Your task to perform on an android device: delete the emails in spam in the gmail app Image 0: 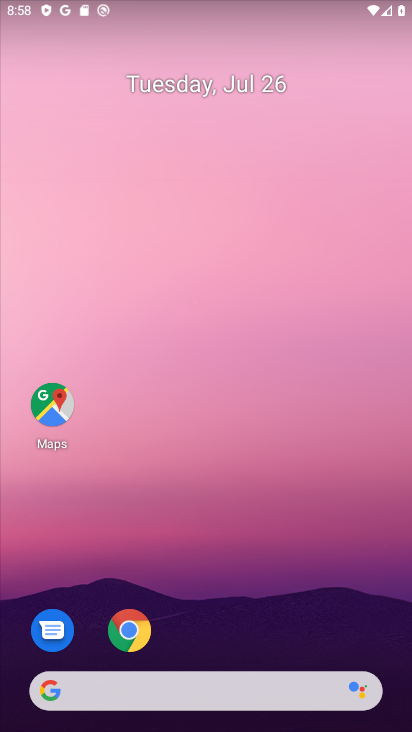
Step 0: drag from (241, 629) to (113, 143)
Your task to perform on an android device: delete the emails in spam in the gmail app Image 1: 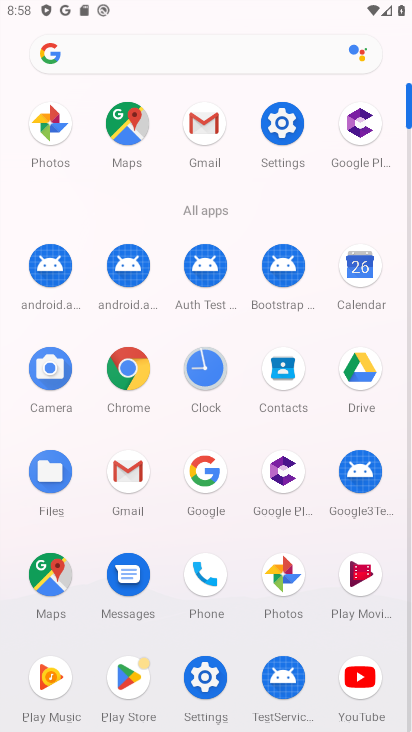
Step 1: click (201, 152)
Your task to perform on an android device: delete the emails in spam in the gmail app Image 2: 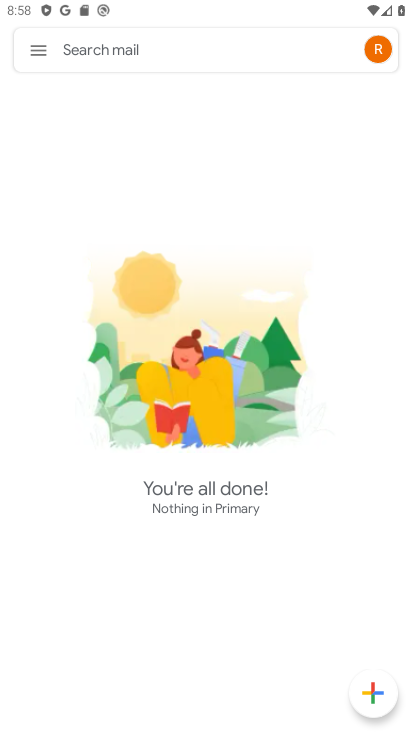
Step 2: click (35, 45)
Your task to perform on an android device: delete the emails in spam in the gmail app Image 3: 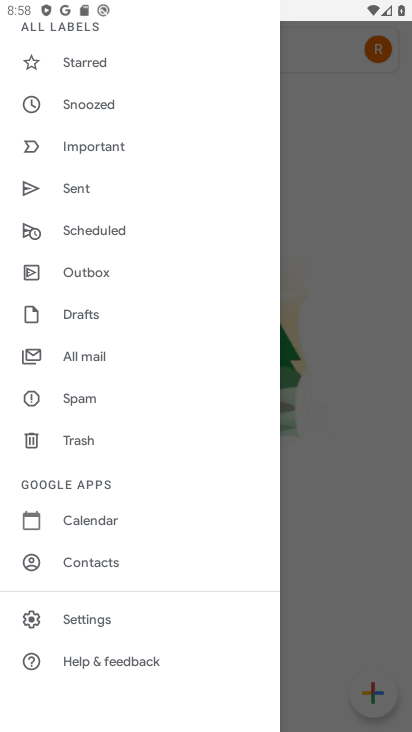
Step 3: click (122, 390)
Your task to perform on an android device: delete the emails in spam in the gmail app Image 4: 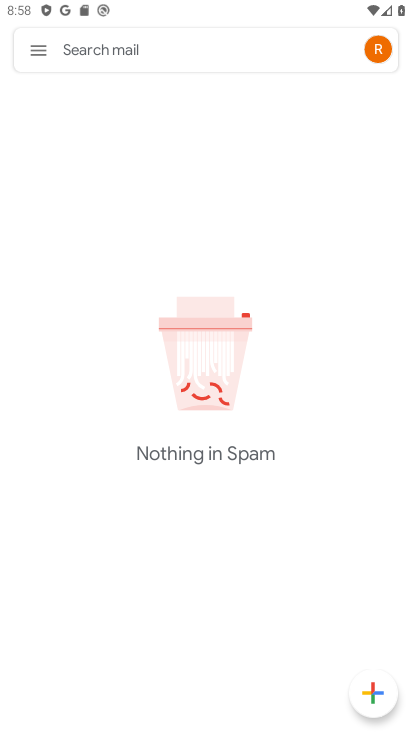
Step 4: task complete